Your task to perform on an android device: open wifi settings Image 0: 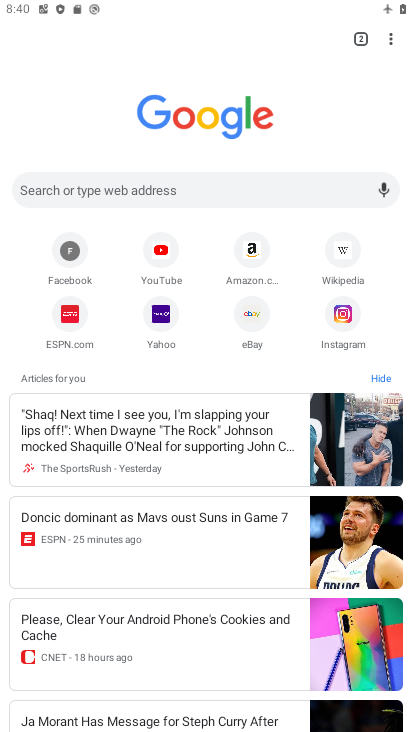
Step 0: press home button
Your task to perform on an android device: open wifi settings Image 1: 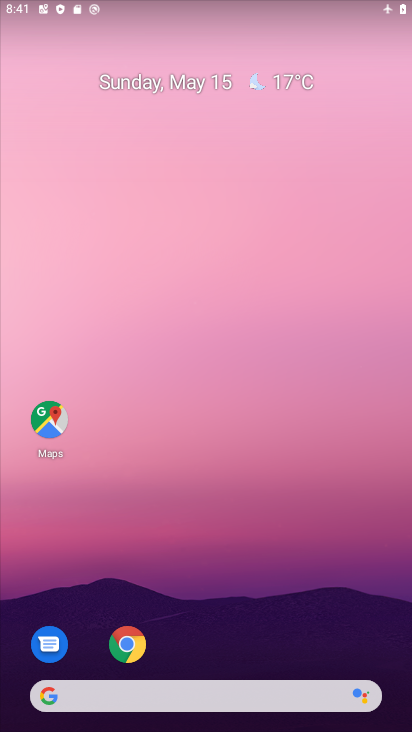
Step 1: drag from (265, 716) to (288, 240)
Your task to perform on an android device: open wifi settings Image 2: 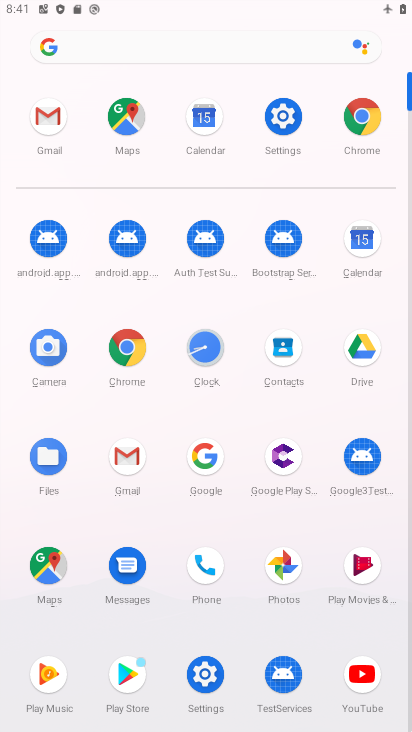
Step 2: click (283, 117)
Your task to perform on an android device: open wifi settings Image 3: 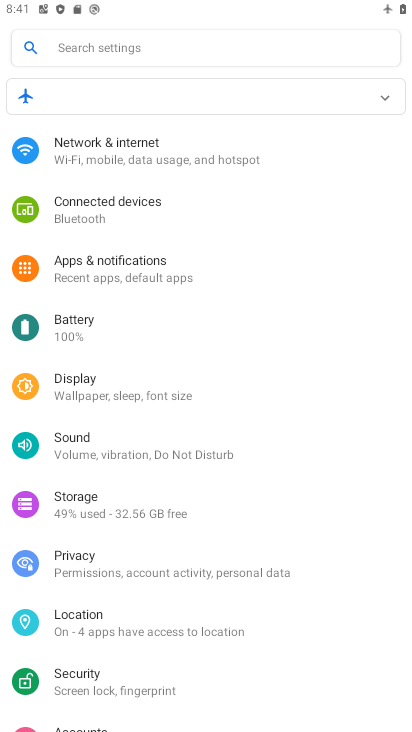
Step 3: click (142, 153)
Your task to perform on an android device: open wifi settings Image 4: 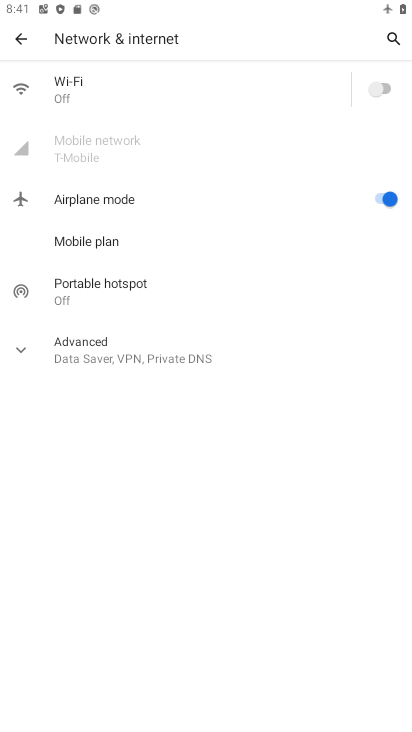
Step 4: task complete